Your task to perform on an android device: check storage Image 0: 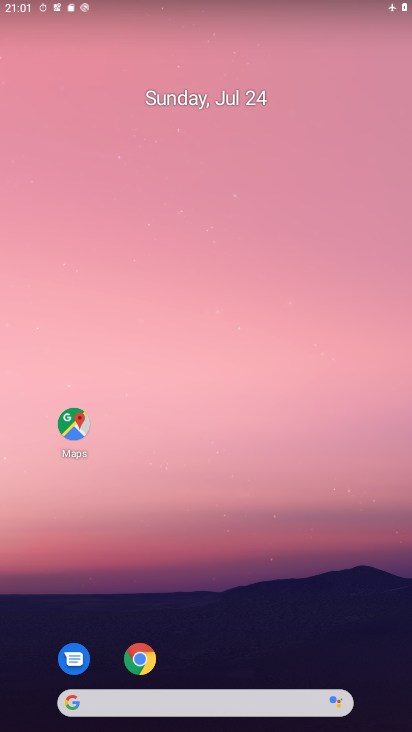
Step 0: drag from (221, 721) to (223, 296)
Your task to perform on an android device: check storage Image 1: 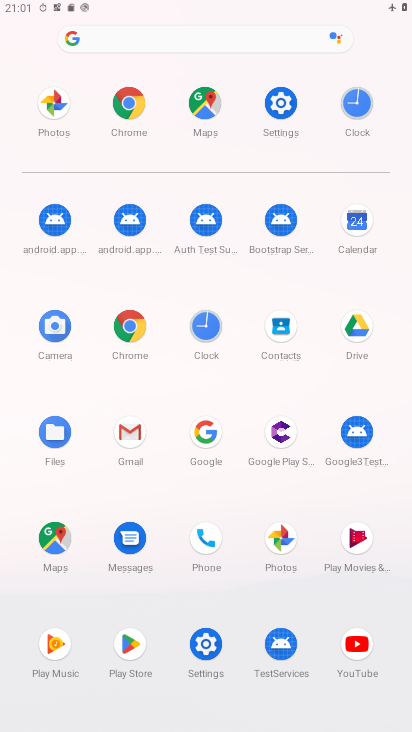
Step 1: click (279, 99)
Your task to perform on an android device: check storage Image 2: 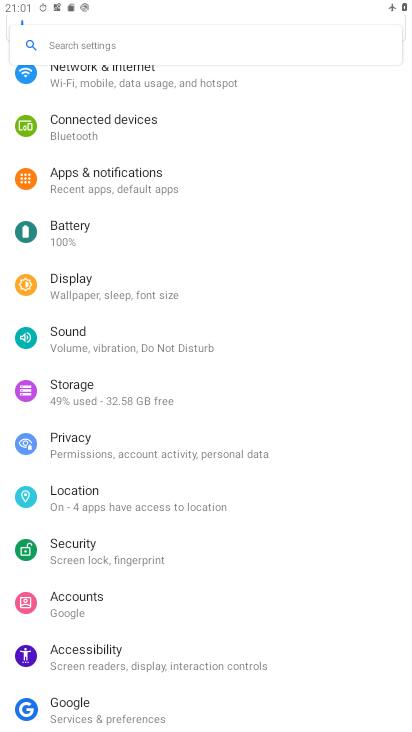
Step 2: click (73, 383)
Your task to perform on an android device: check storage Image 3: 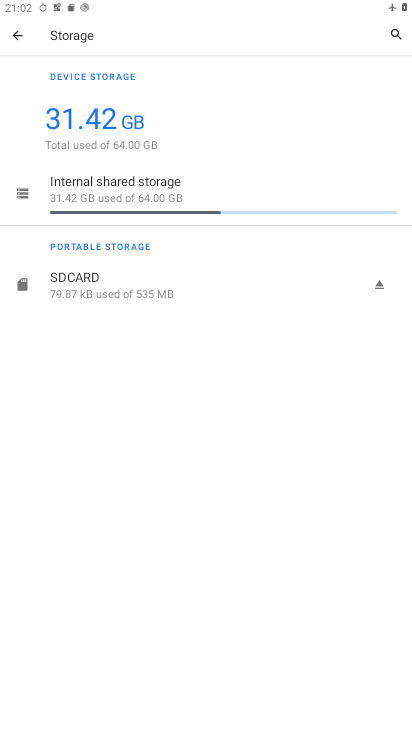
Step 3: task complete